Your task to perform on an android device: Search for seafood restaurants on Google Maps Image 0: 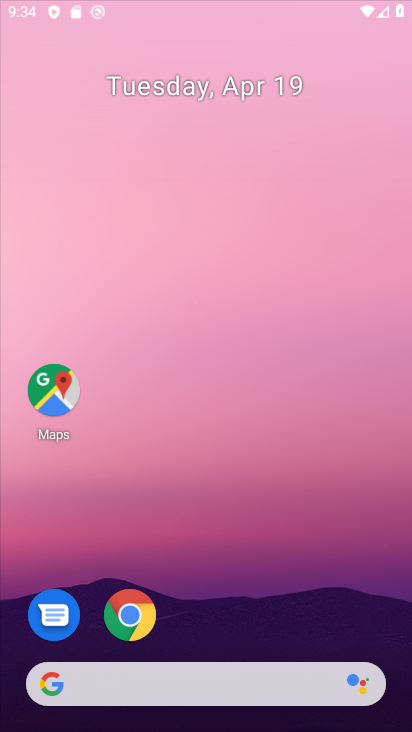
Step 0: click (308, 199)
Your task to perform on an android device: Search for seafood restaurants on Google Maps Image 1: 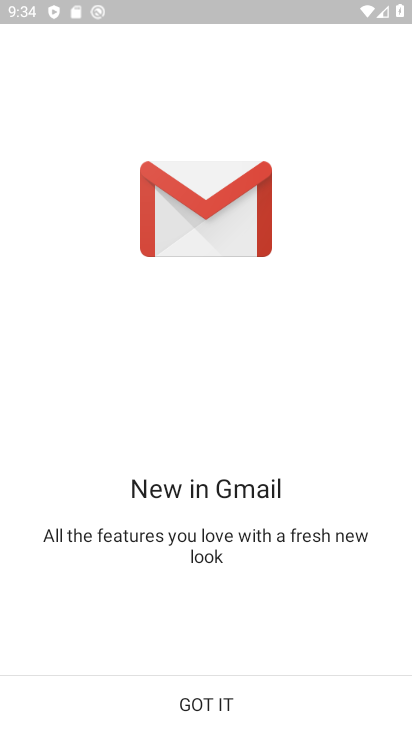
Step 1: drag from (244, 555) to (270, 205)
Your task to perform on an android device: Search for seafood restaurants on Google Maps Image 2: 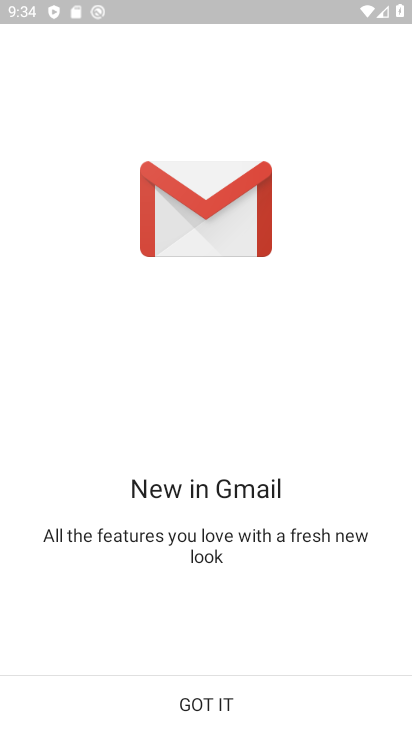
Step 2: drag from (293, 587) to (309, 186)
Your task to perform on an android device: Search for seafood restaurants on Google Maps Image 3: 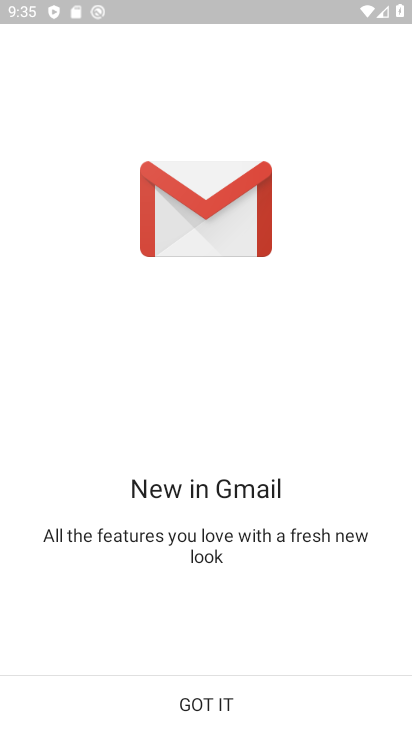
Step 3: click (180, 711)
Your task to perform on an android device: Search for seafood restaurants on Google Maps Image 4: 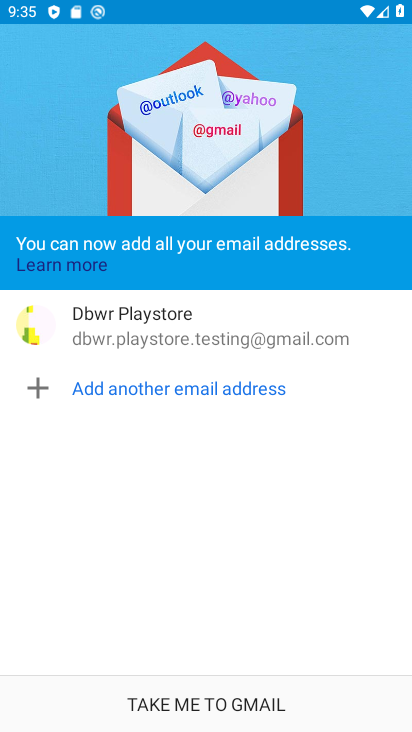
Step 4: click (193, 704)
Your task to perform on an android device: Search for seafood restaurants on Google Maps Image 5: 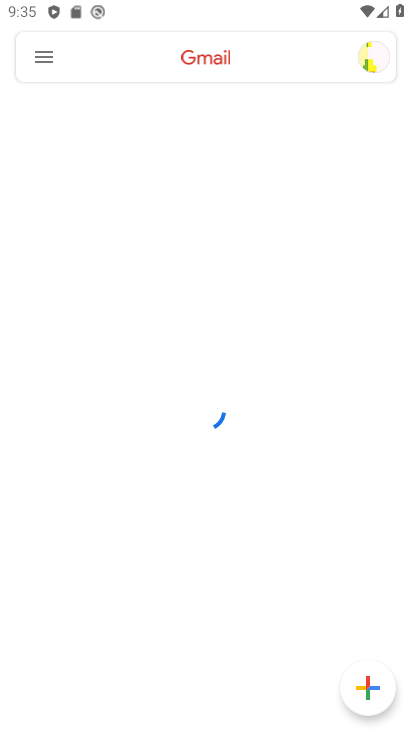
Step 5: press home button
Your task to perform on an android device: Search for seafood restaurants on Google Maps Image 6: 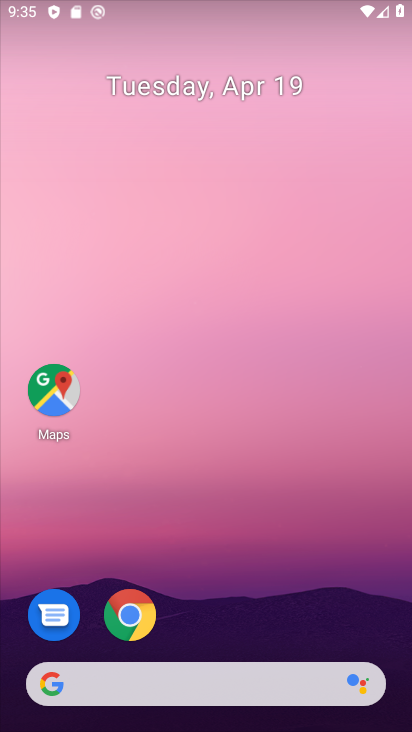
Step 6: drag from (190, 610) to (305, 82)
Your task to perform on an android device: Search for seafood restaurants on Google Maps Image 7: 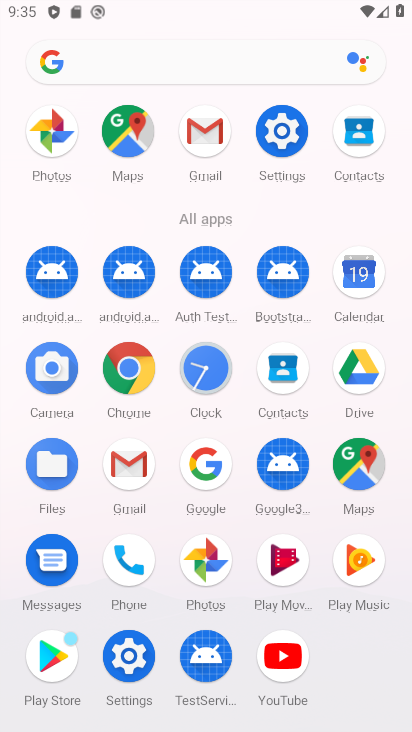
Step 7: click (351, 457)
Your task to perform on an android device: Search for seafood restaurants on Google Maps Image 8: 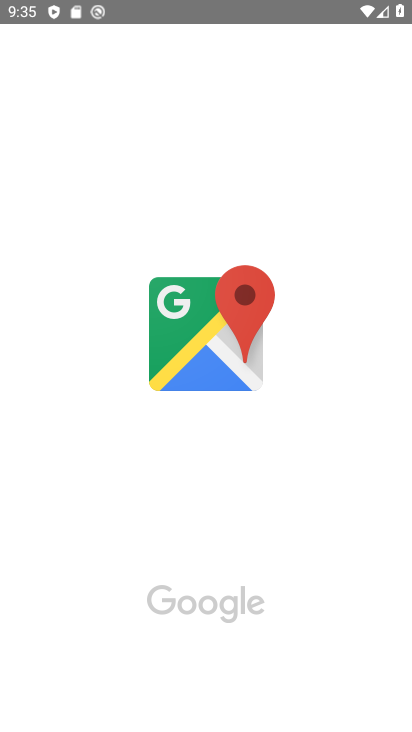
Step 8: drag from (248, 335) to (213, 72)
Your task to perform on an android device: Search for seafood restaurants on Google Maps Image 9: 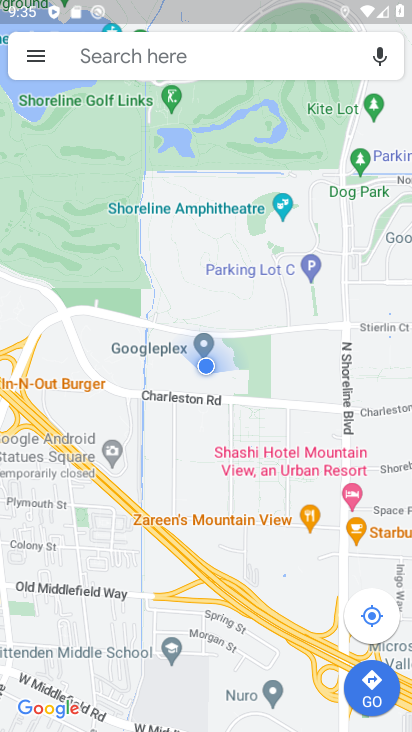
Step 9: drag from (155, 275) to (313, 486)
Your task to perform on an android device: Search for seafood restaurants on Google Maps Image 10: 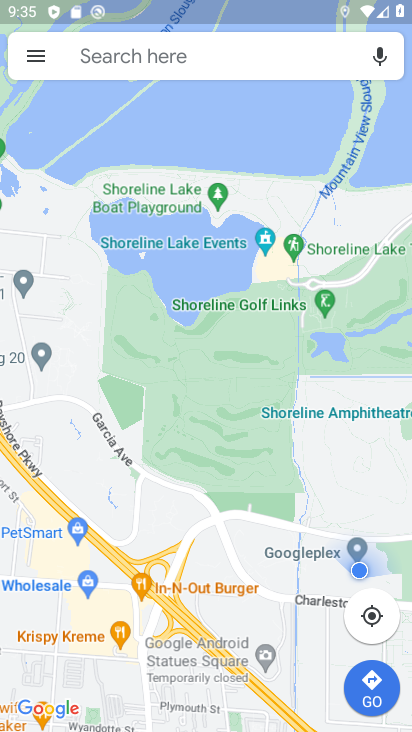
Step 10: drag from (357, 347) to (149, 386)
Your task to perform on an android device: Search for seafood restaurants on Google Maps Image 11: 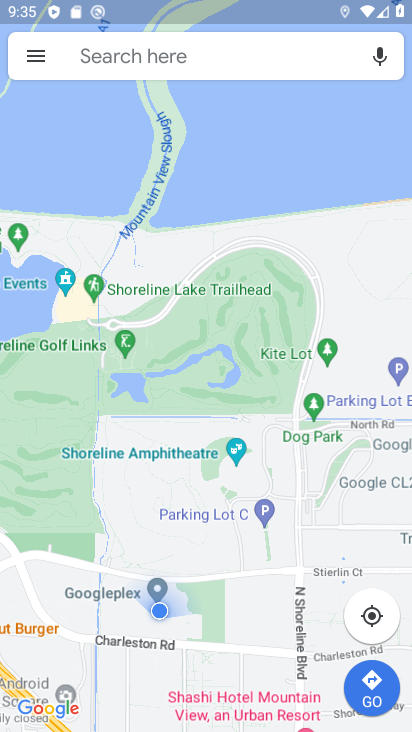
Step 11: click (167, 55)
Your task to perform on an android device: Search for seafood restaurants on Google Maps Image 12: 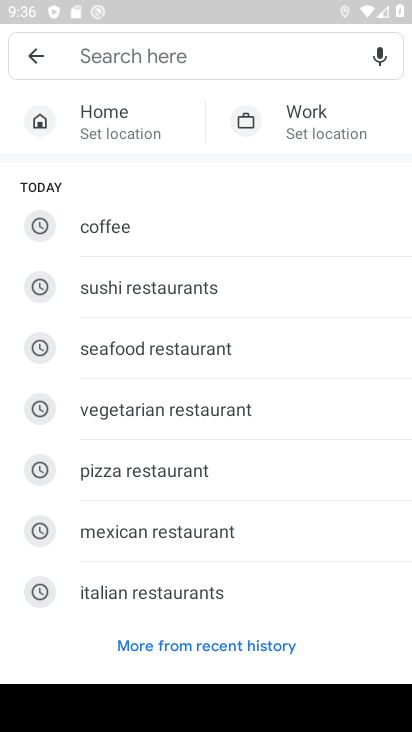
Step 12: type "seafood restaurants"
Your task to perform on an android device: Search for seafood restaurants on Google Maps Image 13: 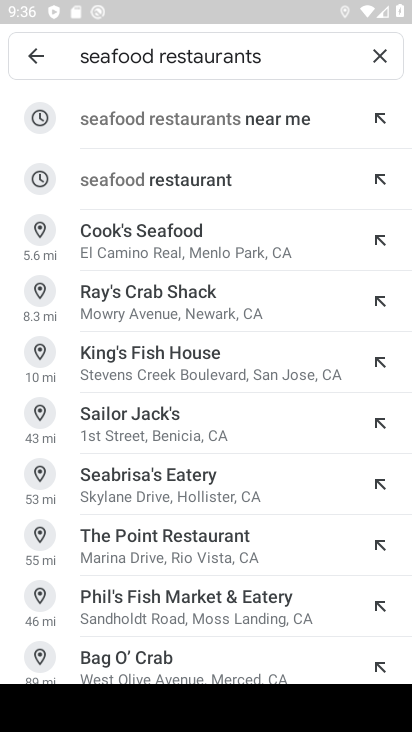
Step 13: click (86, 173)
Your task to perform on an android device: Search for seafood restaurants on Google Maps Image 14: 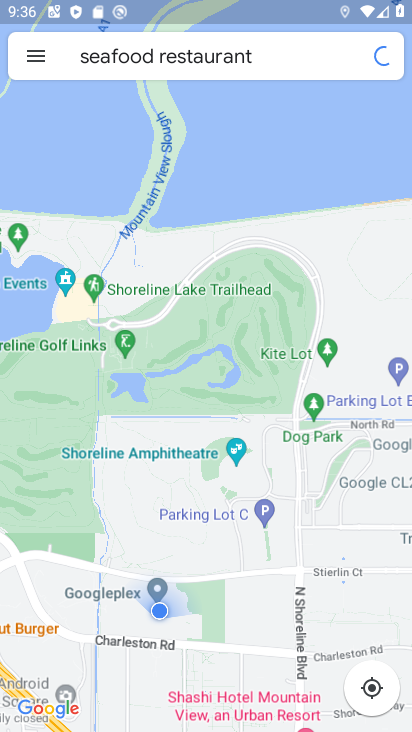
Step 14: task complete